Your task to perform on an android device: Open Google Chrome Image 0: 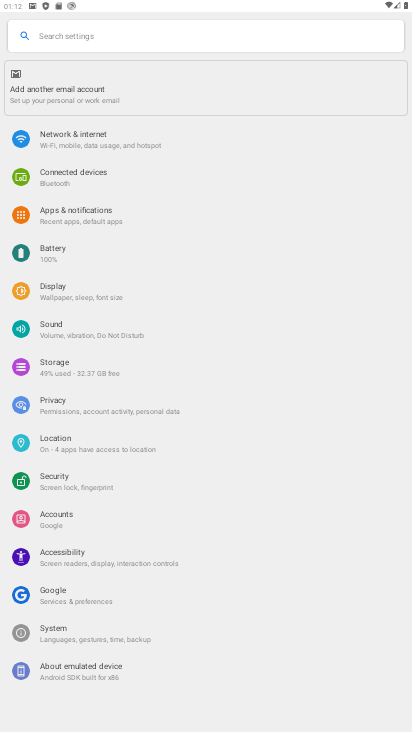
Step 0: press home button
Your task to perform on an android device: Open Google Chrome Image 1: 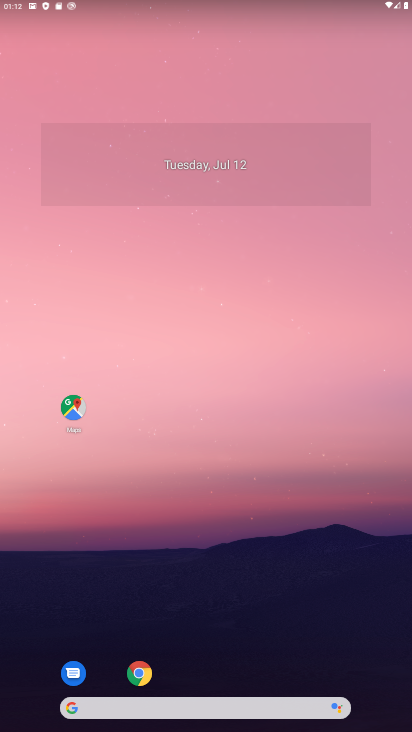
Step 1: click (143, 672)
Your task to perform on an android device: Open Google Chrome Image 2: 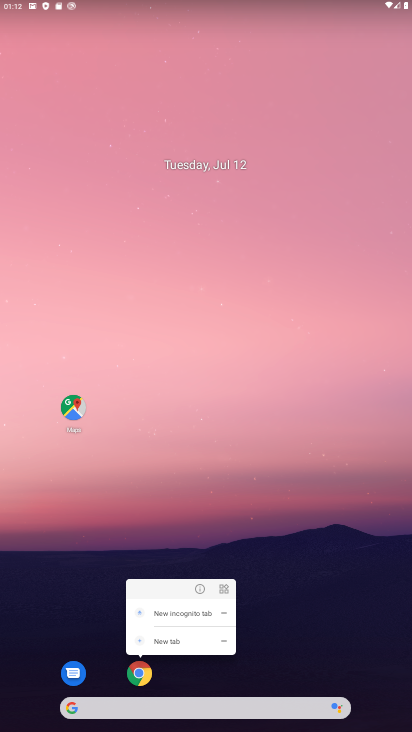
Step 2: click (131, 677)
Your task to perform on an android device: Open Google Chrome Image 3: 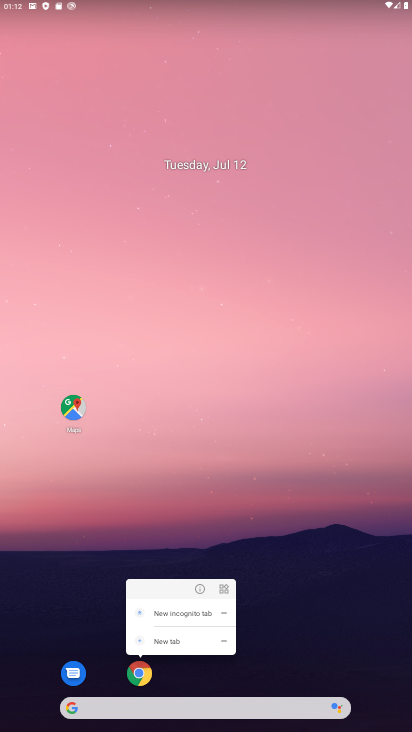
Step 3: click (136, 663)
Your task to perform on an android device: Open Google Chrome Image 4: 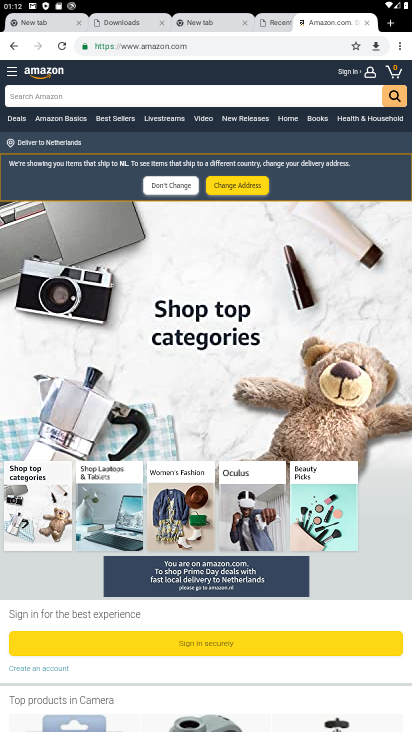
Step 4: click (388, 18)
Your task to perform on an android device: Open Google Chrome Image 5: 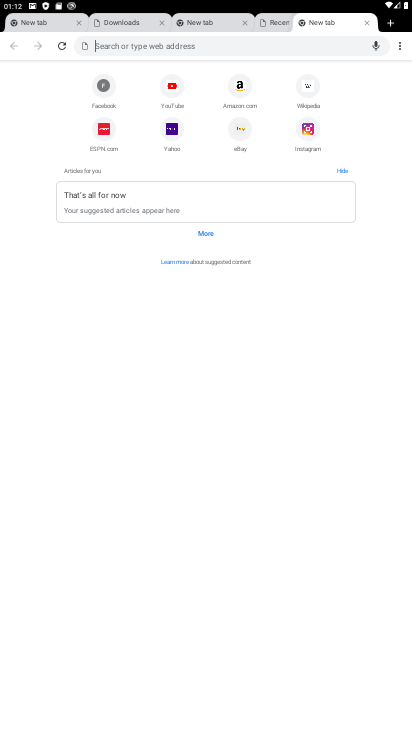
Step 5: task complete